Your task to perform on an android device: Go to Android settings Image 0: 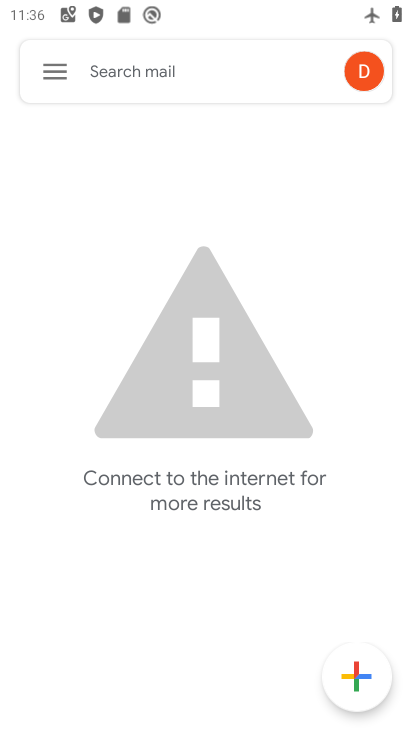
Step 0: press home button
Your task to perform on an android device: Go to Android settings Image 1: 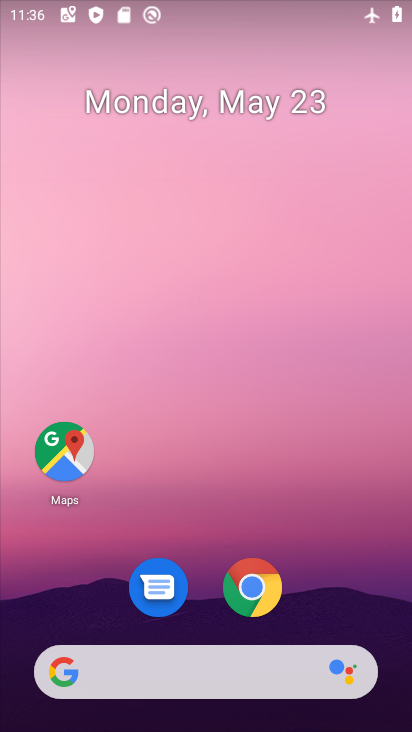
Step 1: drag from (375, 617) to (249, 88)
Your task to perform on an android device: Go to Android settings Image 2: 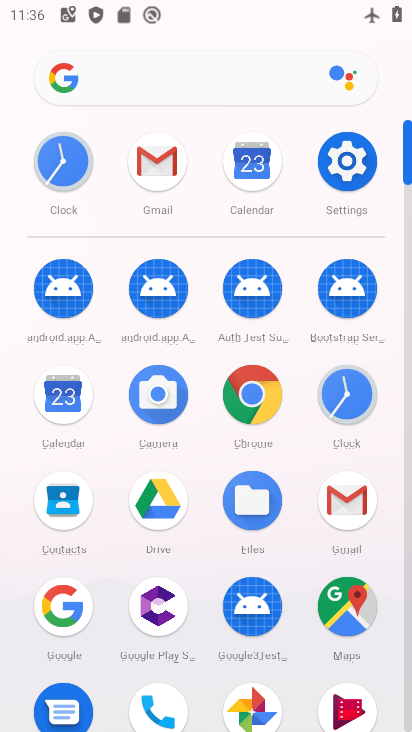
Step 2: click (336, 171)
Your task to perform on an android device: Go to Android settings Image 3: 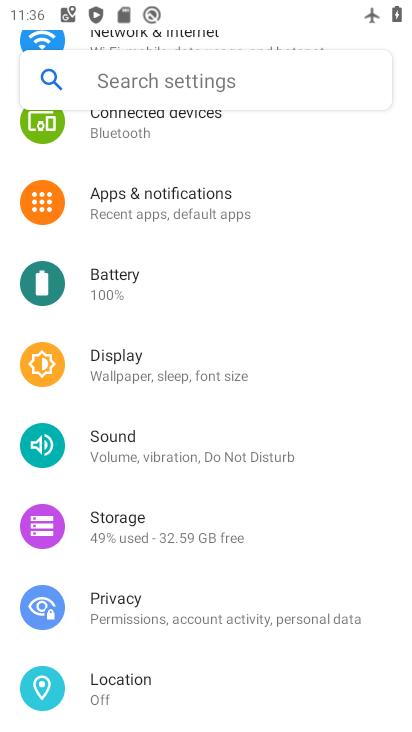
Step 3: task complete